Your task to perform on an android device: add a contact in the contacts app Image 0: 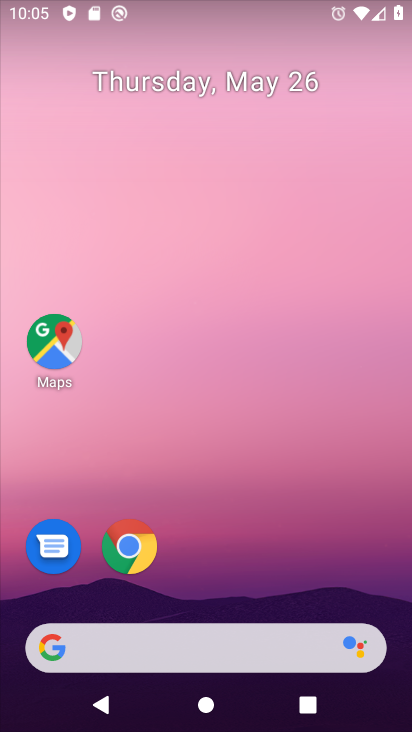
Step 0: drag from (273, 570) to (166, 57)
Your task to perform on an android device: add a contact in the contacts app Image 1: 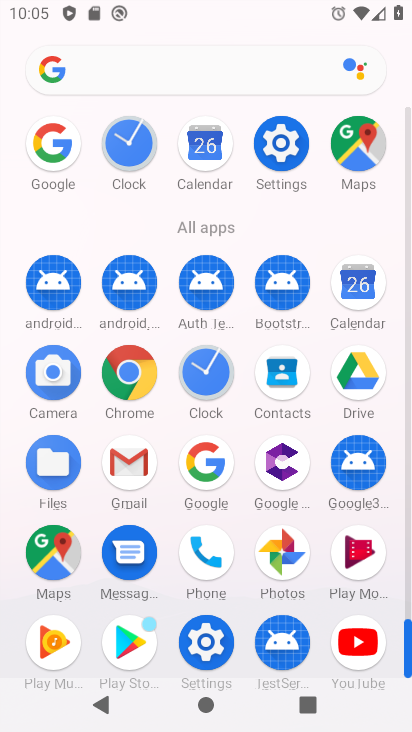
Step 1: click (283, 372)
Your task to perform on an android device: add a contact in the contacts app Image 2: 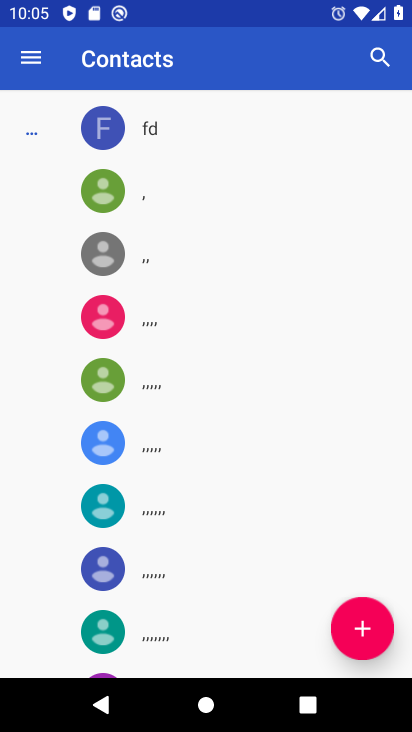
Step 2: click (363, 630)
Your task to perform on an android device: add a contact in the contacts app Image 3: 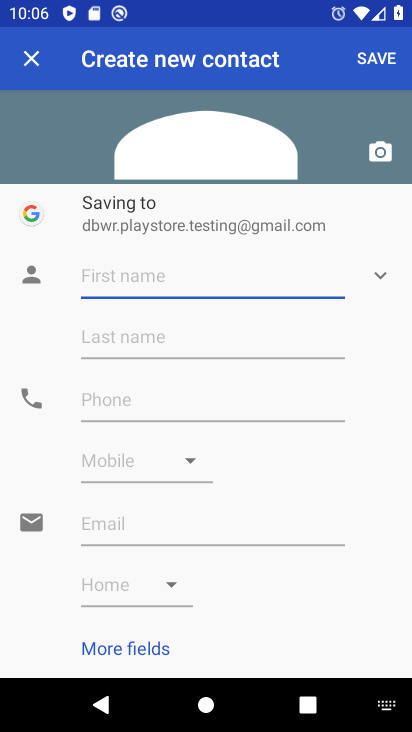
Step 3: type "Sukhwindar"
Your task to perform on an android device: add a contact in the contacts app Image 4: 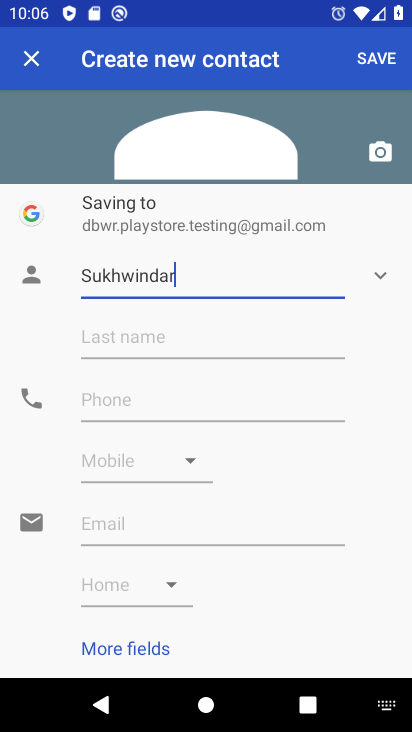
Step 4: click (288, 349)
Your task to perform on an android device: add a contact in the contacts app Image 5: 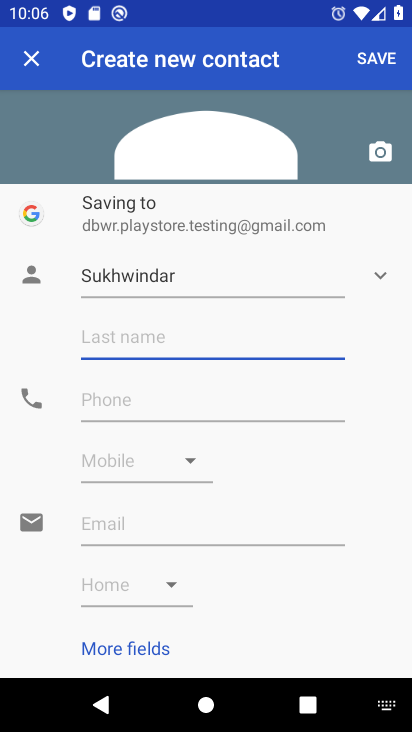
Step 5: type "Sherawat"
Your task to perform on an android device: add a contact in the contacts app Image 6: 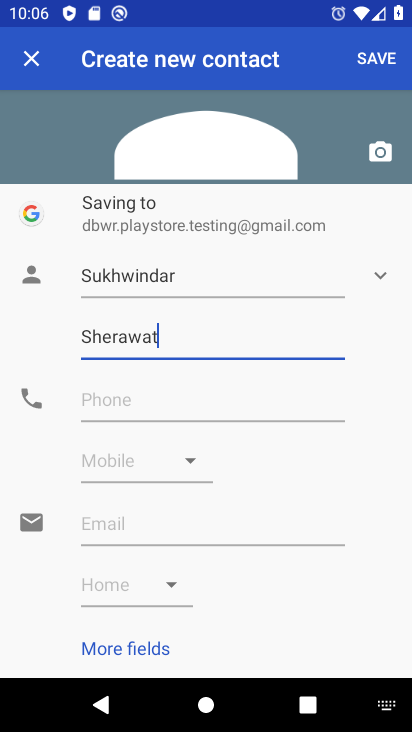
Step 6: click (235, 406)
Your task to perform on an android device: add a contact in the contacts app Image 7: 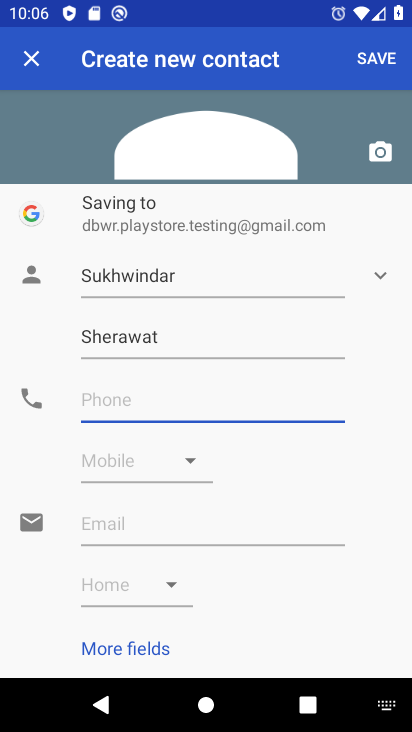
Step 7: type "0997867563412"
Your task to perform on an android device: add a contact in the contacts app Image 8: 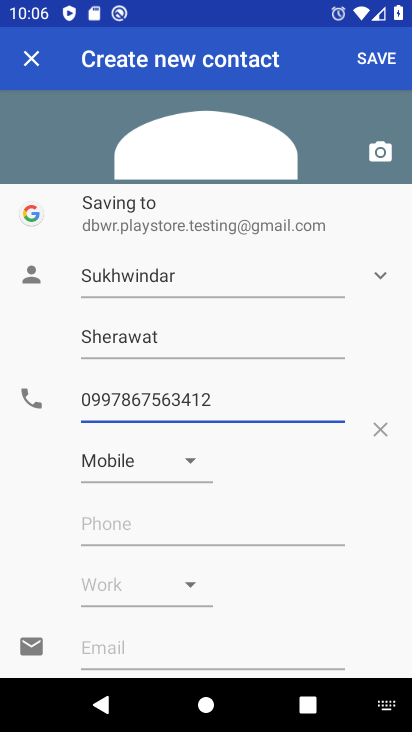
Step 8: click (395, 50)
Your task to perform on an android device: add a contact in the contacts app Image 9: 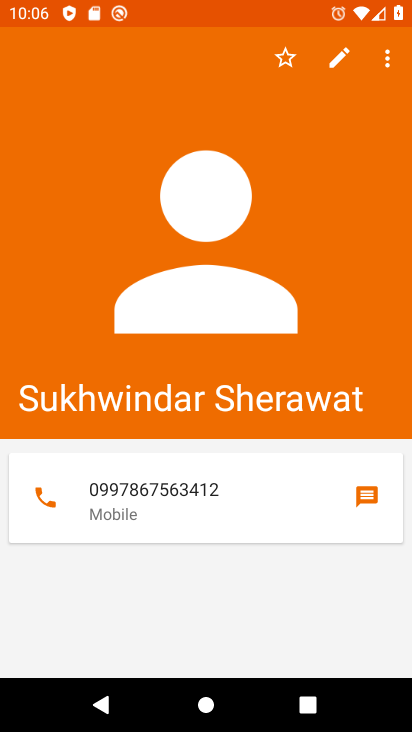
Step 9: task complete